Your task to perform on an android device: clear history in the chrome app Image 0: 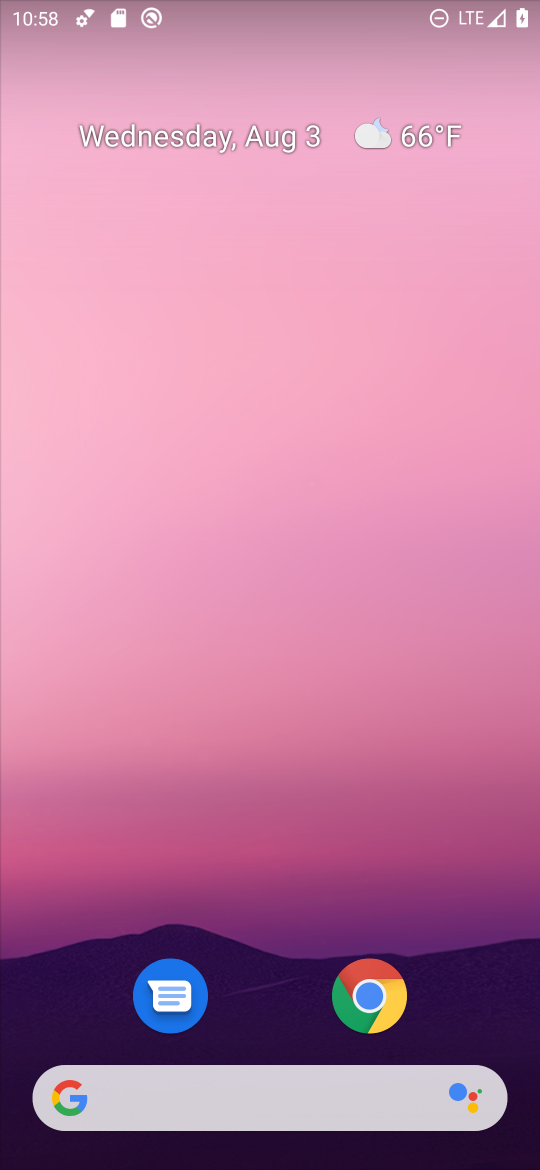
Step 0: click (371, 1004)
Your task to perform on an android device: clear history in the chrome app Image 1: 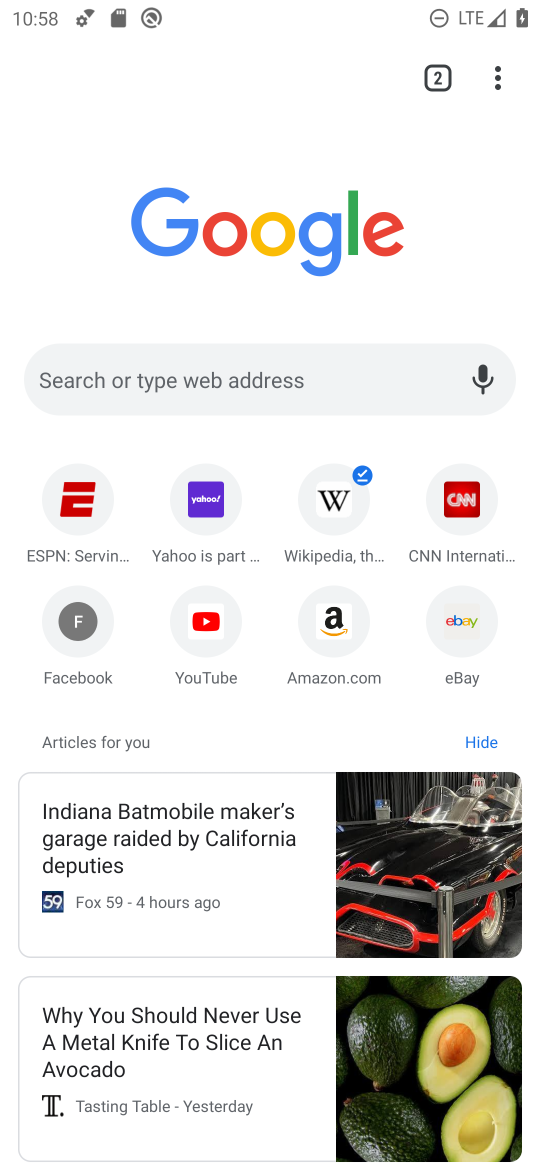
Step 1: click (494, 79)
Your task to perform on an android device: clear history in the chrome app Image 2: 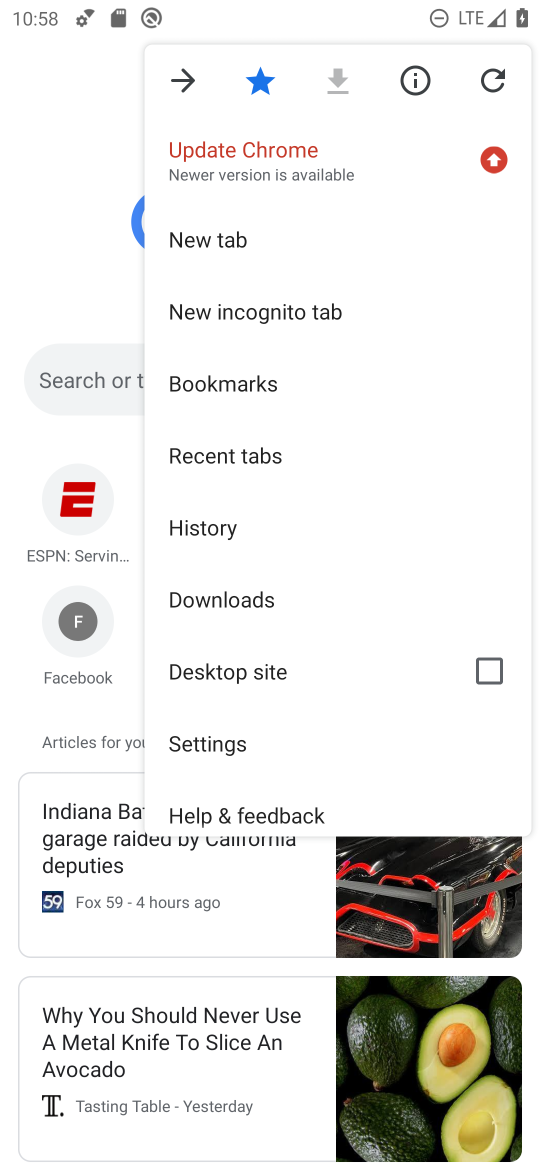
Step 2: click (226, 517)
Your task to perform on an android device: clear history in the chrome app Image 3: 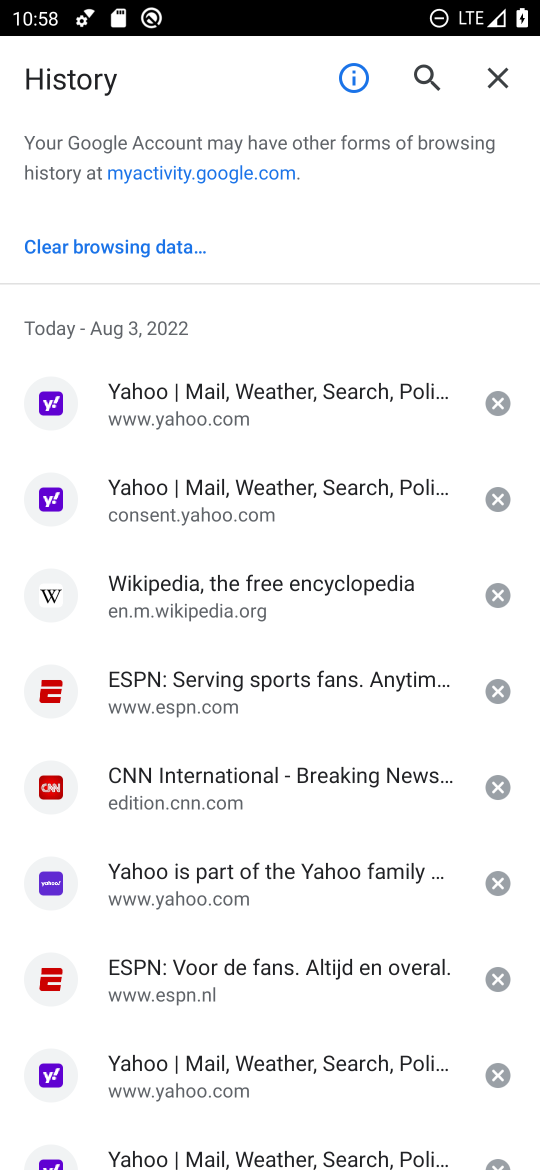
Step 3: click (134, 248)
Your task to perform on an android device: clear history in the chrome app Image 4: 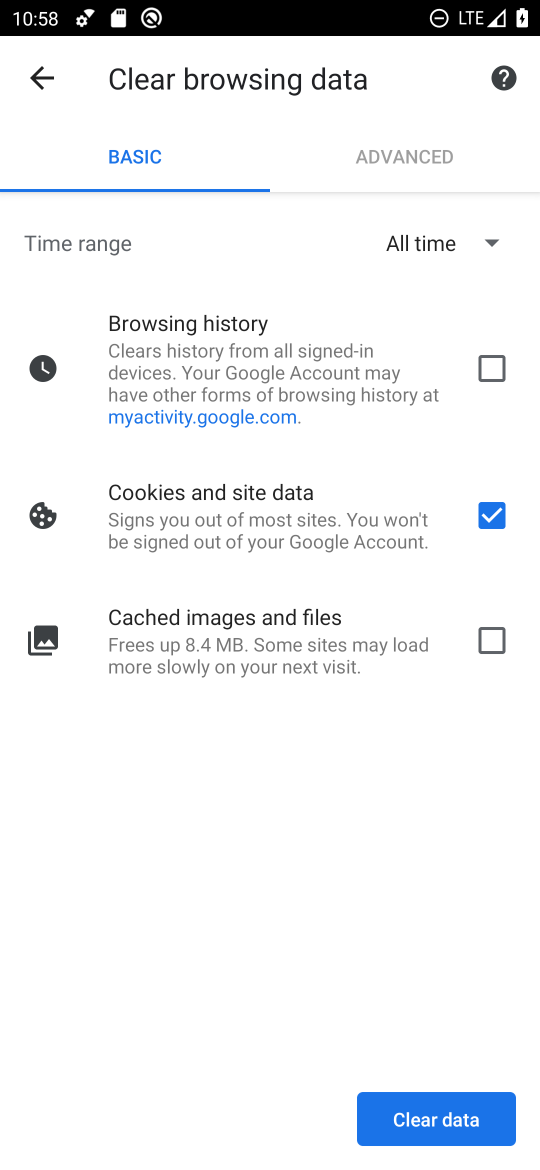
Step 4: click (495, 364)
Your task to perform on an android device: clear history in the chrome app Image 5: 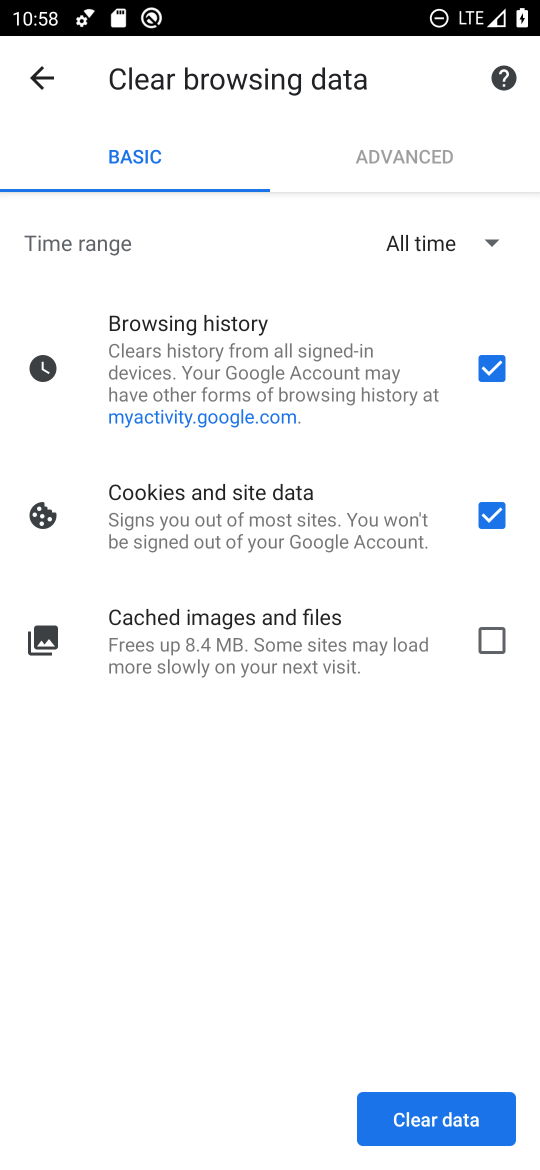
Step 5: click (500, 501)
Your task to perform on an android device: clear history in the chrome app Image 6: 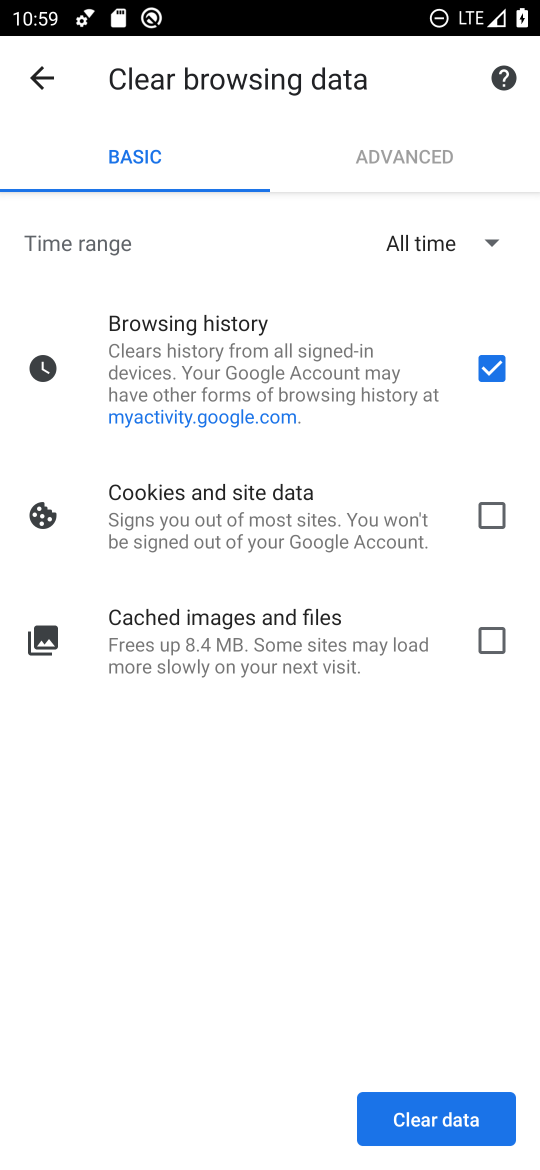
Step 6: click (432, 1120)
Your task to perform on an android device: clear history in the chrome app Image 7: 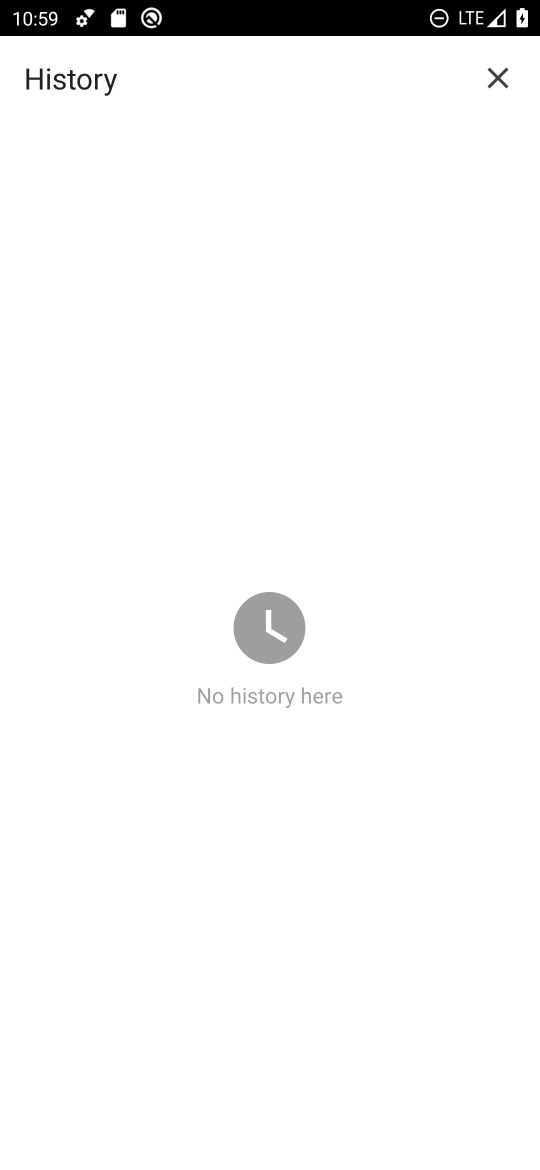
Step 7: task complete